Your task to perform on an android device: Open Google Maps Image 0: 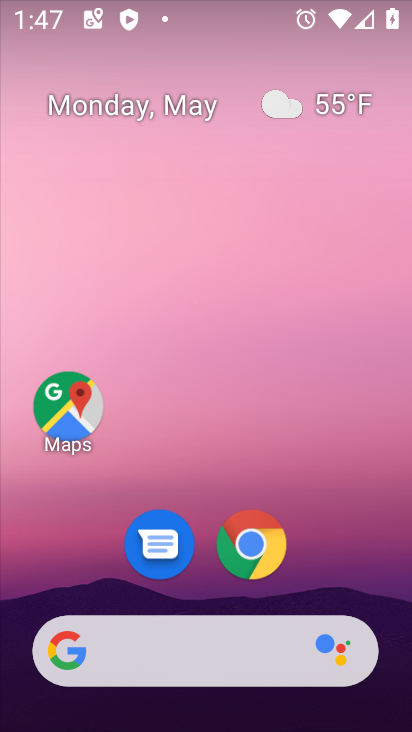
Step 0: click (66, 409)
Your task to perform on an android device: Open Google Maps Image 1: 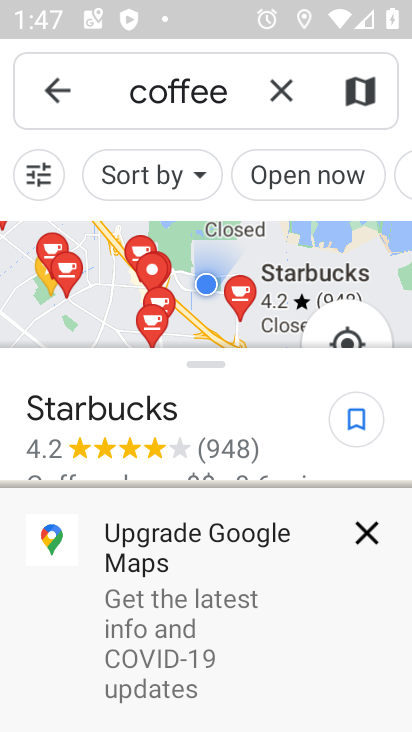
Step 1: click (281, 91)
Your task to perform on an android device: Open Google Maps Image 2: 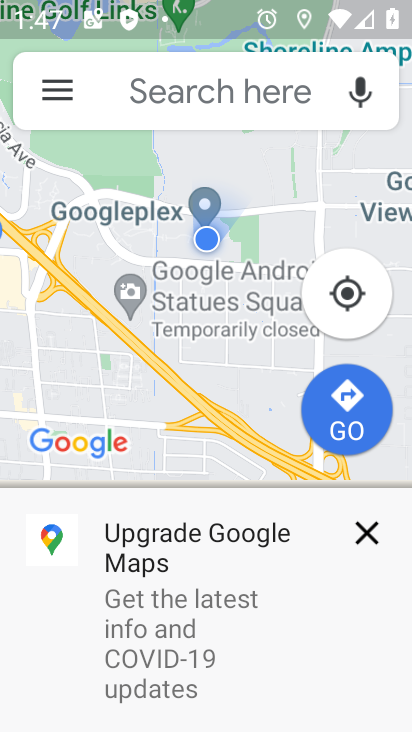
Step 2: click (366, 535)
Your task to perform on an android device: Open Google Maps Image 3: 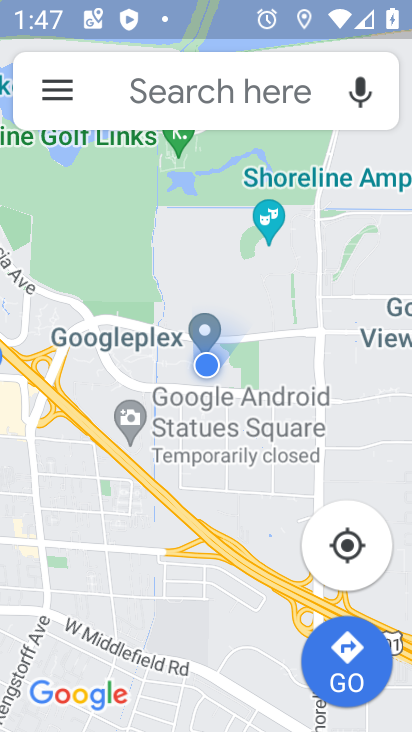
Step 3: task complete